Your task to perform on an android device: Go to Amazon Image 0: 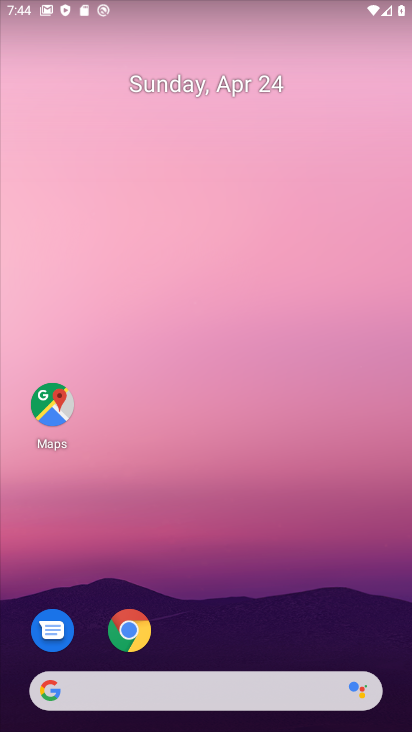
Step 0: drag from (350, 627) to (355, 93)
Your task to perform on an android device: Go to Amazon Image 1: 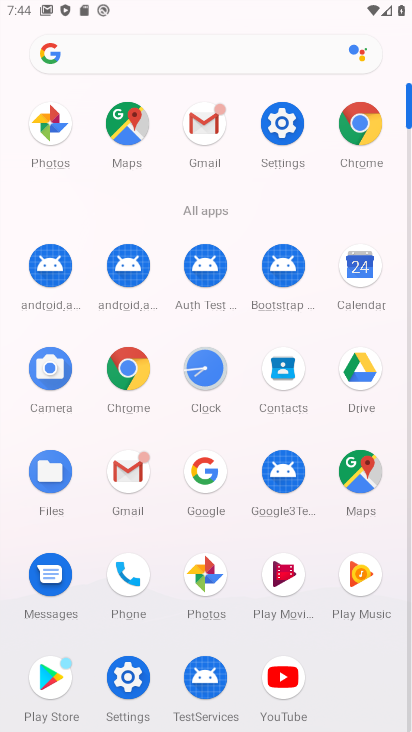
Step 1: click (129, 383)
Your task to perform on an android device: Go to Amazon Image 2: 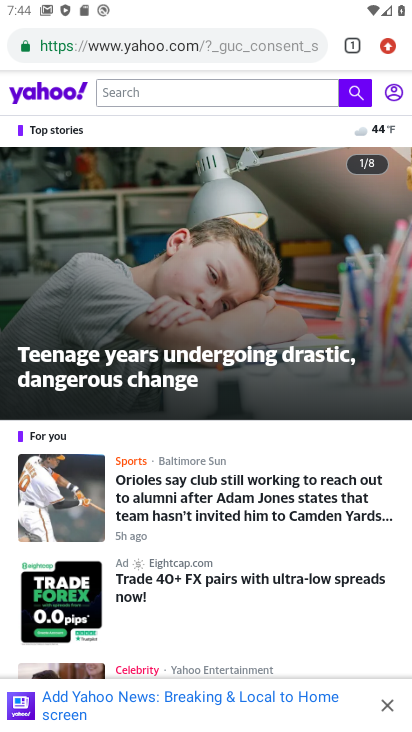
Step 2: press back button
Your task to perform on an android device: Go to Amazon Image 3: 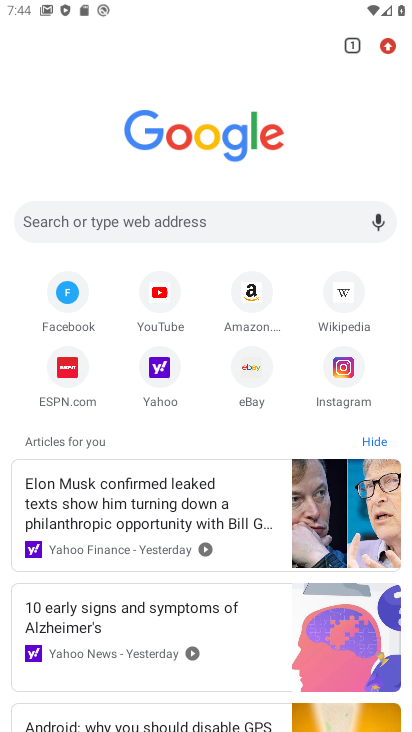
Step 3: click (247, 300)
Your task to perform on an android device: Go to Amazon Image 4: 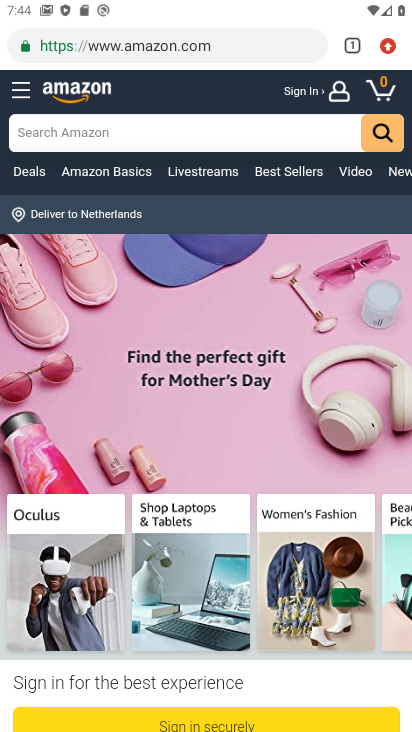
Step 4: task complete